Your task to perform on an android device: star an email in the gmail app Image 0: 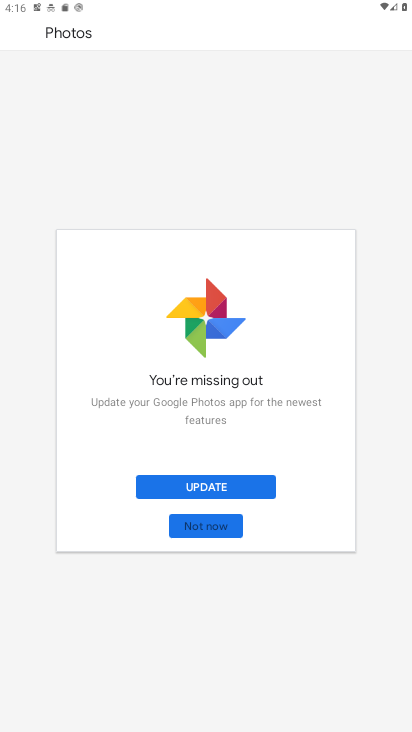
Step 0: press home button
Your task to perform on an android device: star an email in the gmail app Image 1: 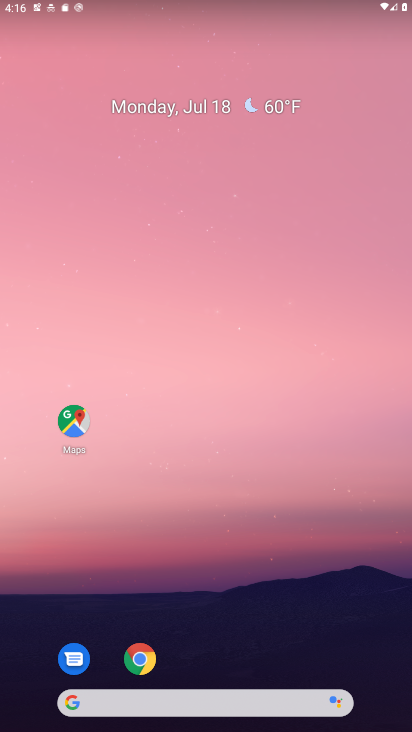
Step 1: drag from (260, 654) to (275, 728)
Your task to perform on an android device: star an email in the gmail app Image 2: 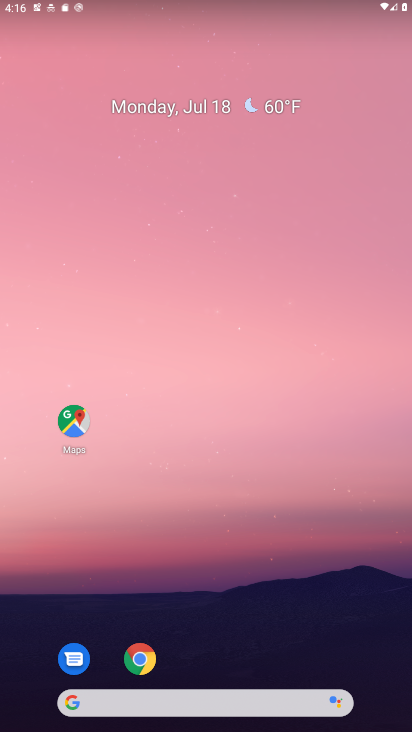
Step 2: drag from (284, 687) to (383, 10)
Your task to perform on an android device: star an email in the gmail app Image 3: 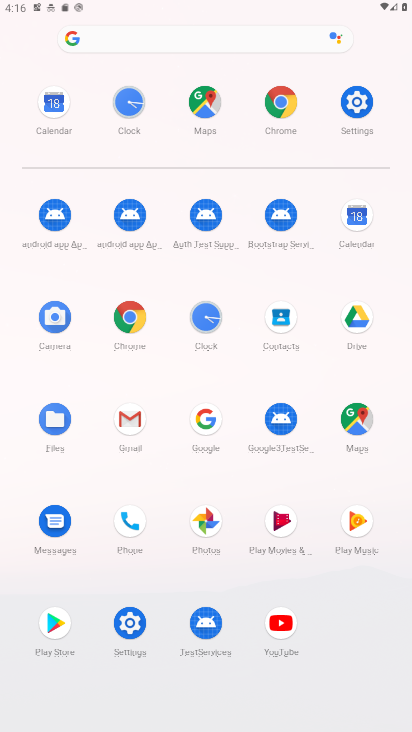
Step 3: click (133, 421)
Your task to perform on an android device: star an email in the gmail app Image 4: 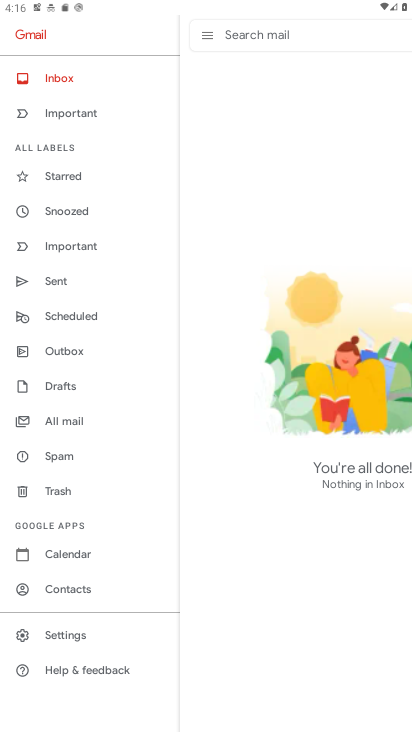
Step 4: click (59, 177)
Your task to perform on an android device: star an email in the gmail app Image 5: 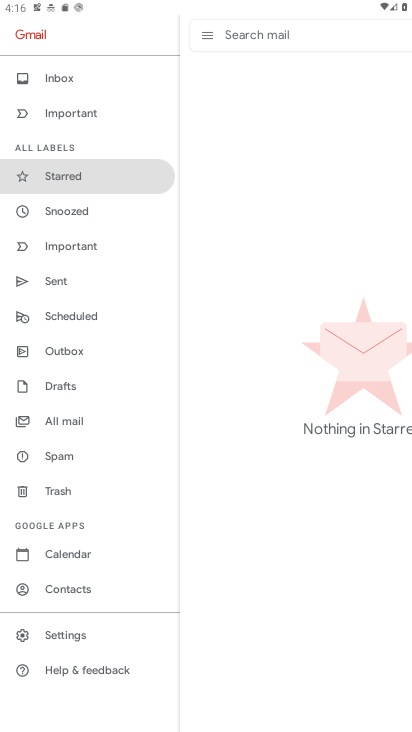
Step 5: task complete